Your task to perform on an android device: turn on airplane mode Image 0: 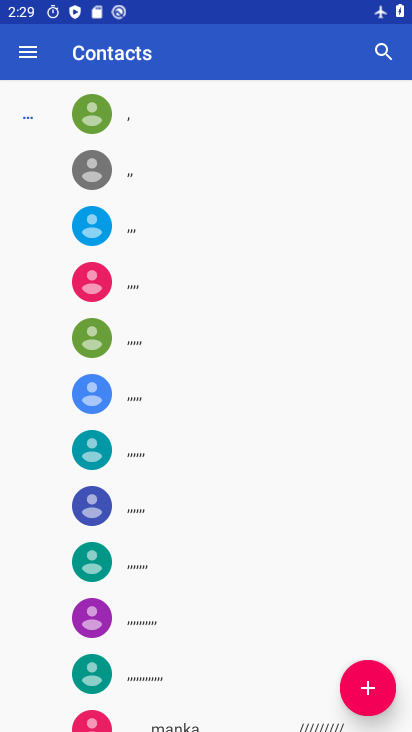
Step 0: press home button
Your task to perform on an android device: turn on airplane mode Image 1: 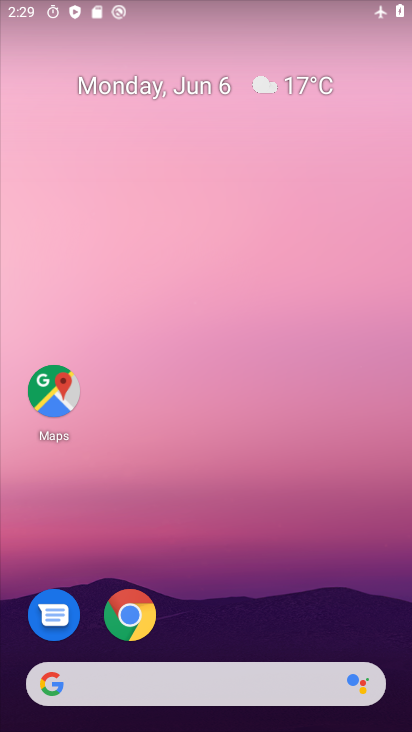
Step 1: drag from (275, 615) to (286, 213)
Your task to perform on an android device: turn on airplane mode Image 2: 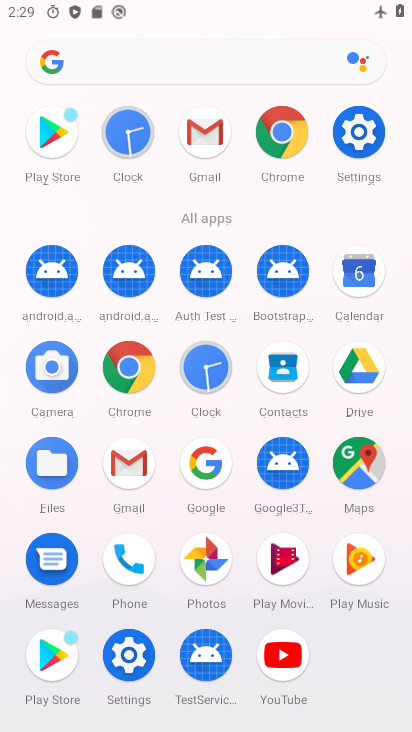
Step 2: click (353, 136)
Your task to perform on an android device: turn on airplane mode Image 3: 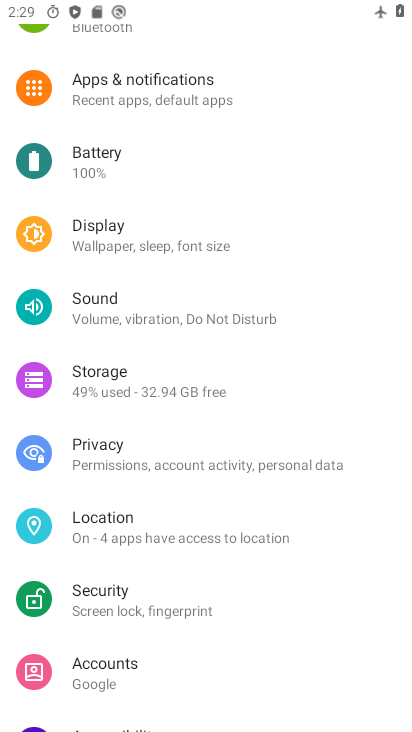
Step 3: drag from (163, 169) to (160, 467)
Your task to perform on an android device: turn on airplane mode Image 4: 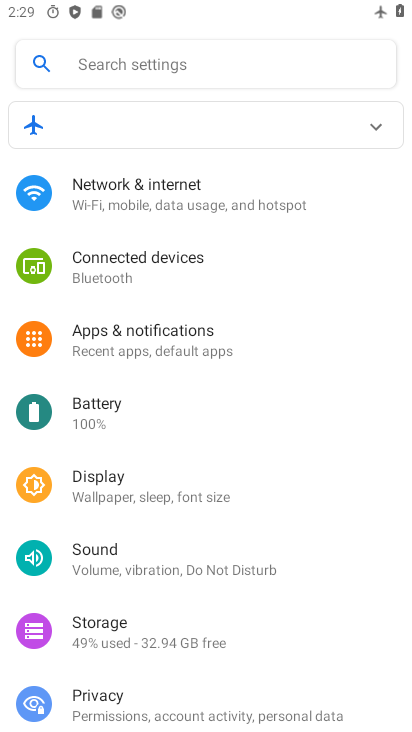
Step 4: click (148, 207)
Your task to perform on an android device: turn on airplane mode Image 5: 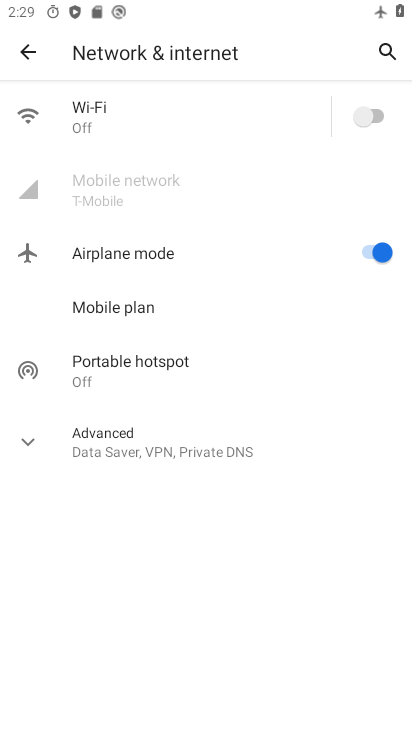
Step 5: task complete